Your task to perform on an android device: Go to Maps Image 0: 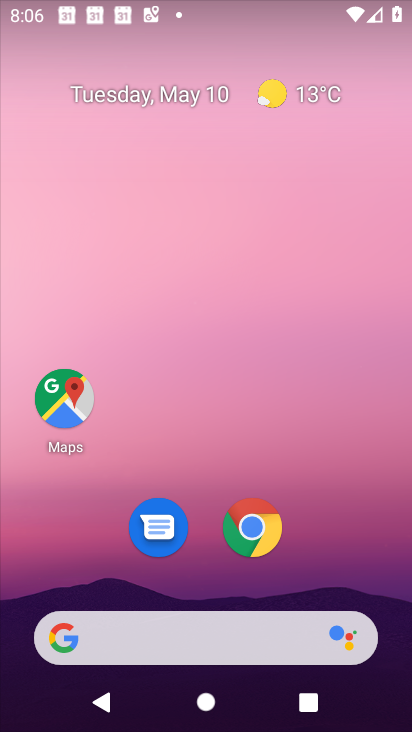
Step 0: click (63, 386)
Your task to perform on an android device: Go to Maps Image 1: 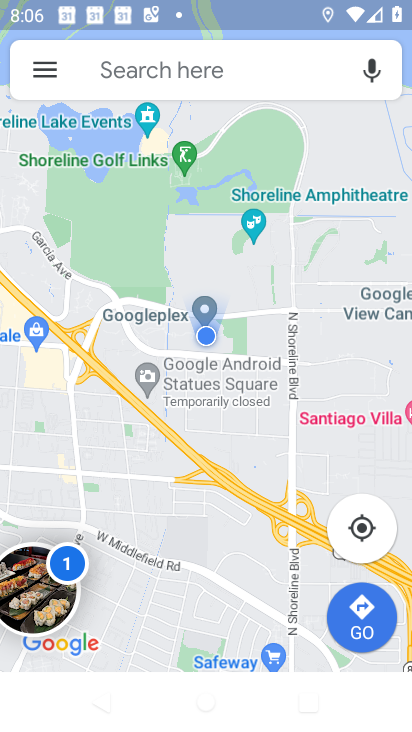
Step 1: task complete